Your task to perform on an android device: toggle priority inbox in the gmail app Image 0: 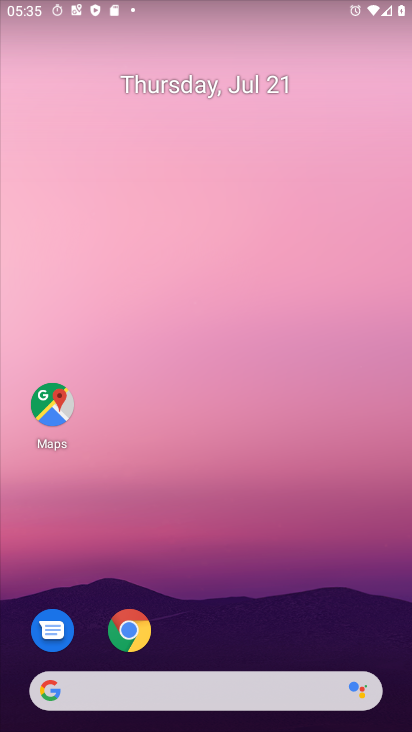
Step 0: drag from (195, 683) to (230, 58)
Your task to perform on an android device: toggle priority inbox in the gmail app Image 1: 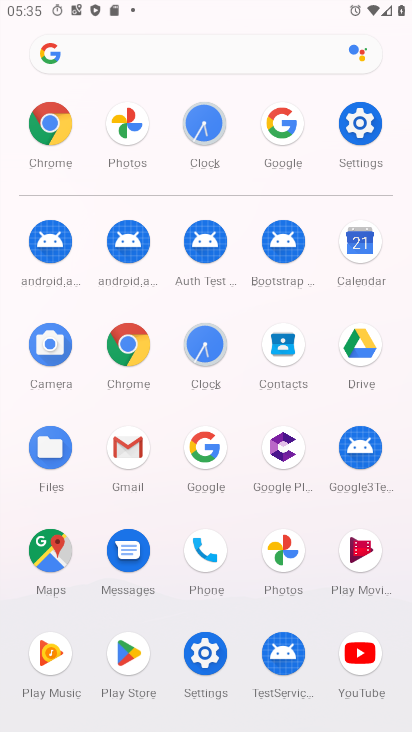
Step 1: click (126, 446)
Your task to perform on an android device: toggle priority inbox in the gmail app Image 2: 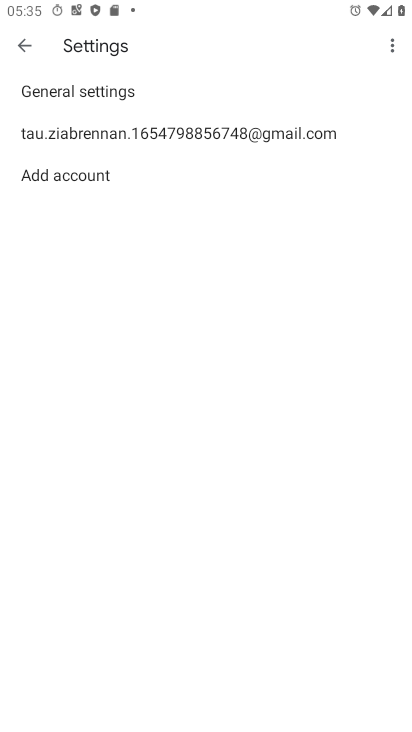
Step 2: click (89, 133)
Your task to perform on an android device: toggle priority inbox in the gmail app Image 3: 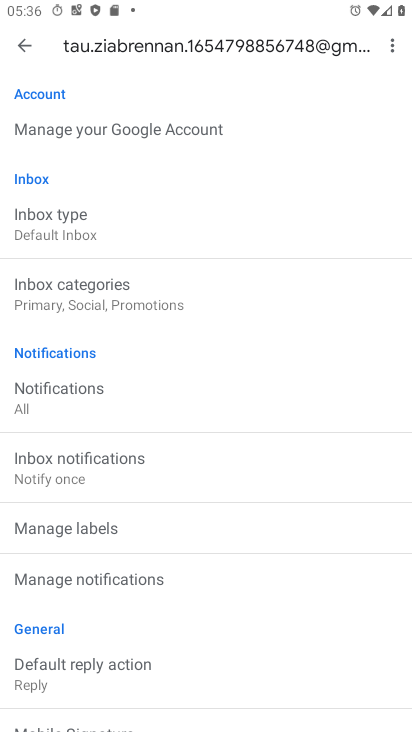
Step 3: click (63, 227)
Your task to perform on an android device: toggle priority inbox in the gmail app Image 4: 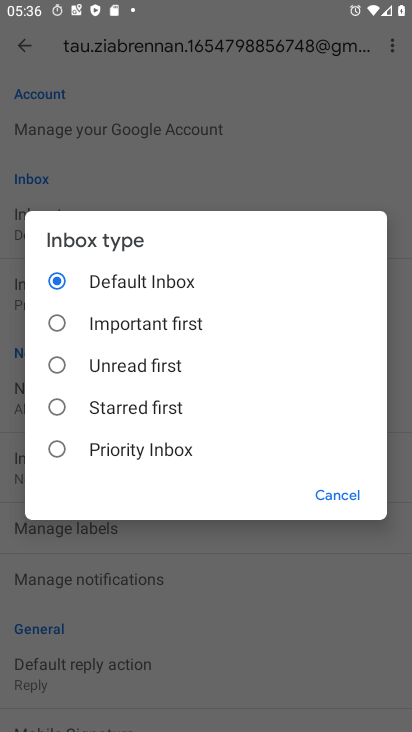
Step 4: click (58, 450)
Your task to perform on an android device: toggle priority inbox in the gmail app Image 5: 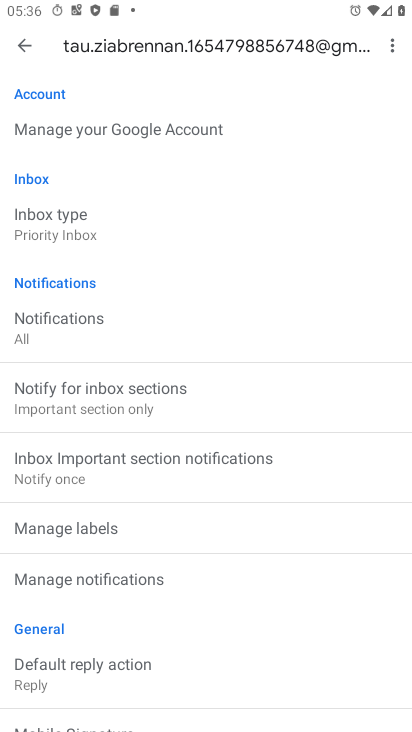
Step 5: task complete